Your task to perform on an android device: open a bookmark in the chrome app Image 0: 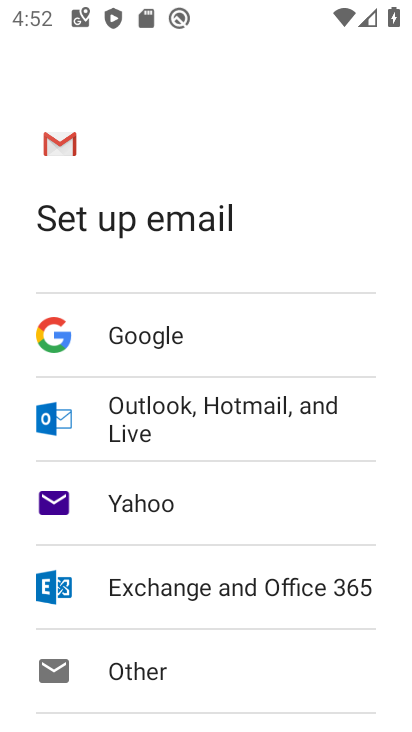
Step 0: press home button
Your task to perform on an android device: open a bookmark in the chrome app Image 1: 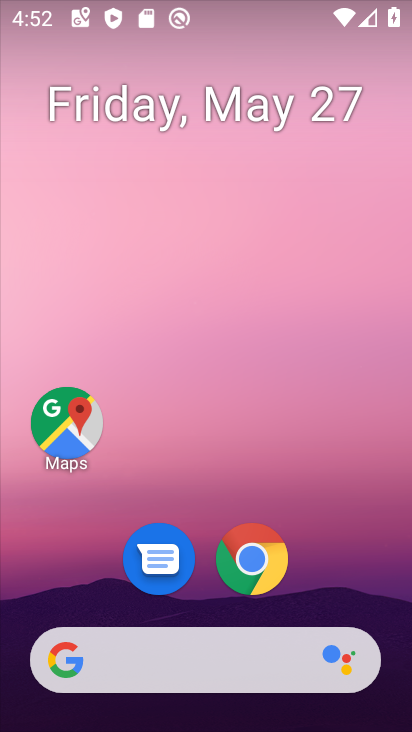
Step 1: click (264, 570)
Your task to perform on an android device: open a bookmark in the chrome app Image 2: 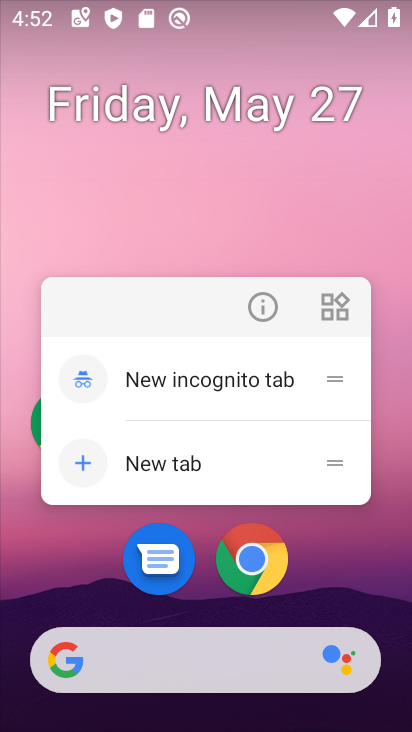
Step 2: click (260, 554)
Your task to perform on an android device: open a bookmark in the chrome app Image 3: 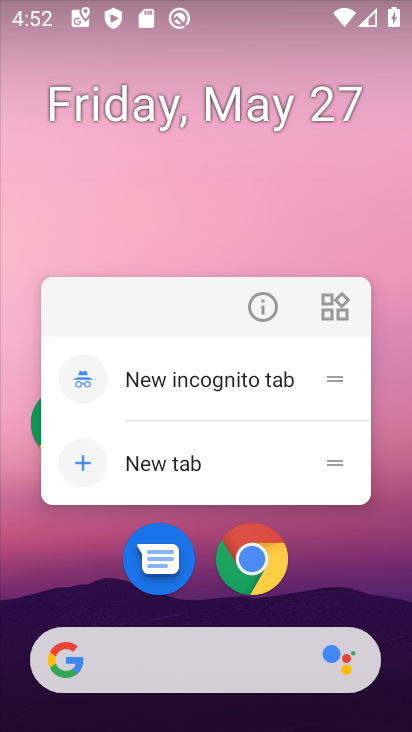
Step 3: click (339, 563)
Your task to perform on an android device: open a bookmark in the chrome app Image 4: 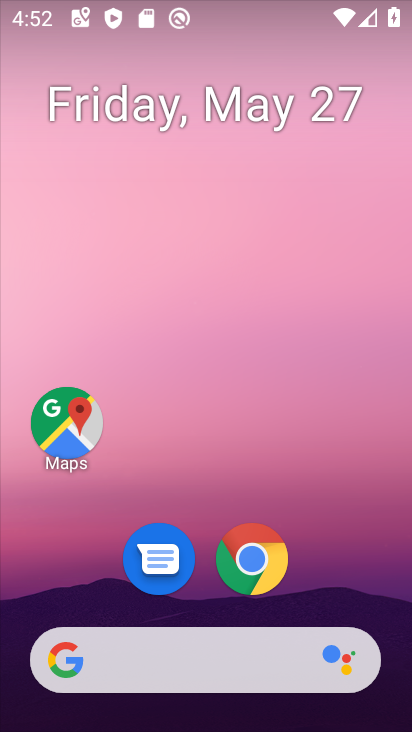
Step 4: drag from (339, 590) to (337, 35)
Your task to perform on an android device: open a bookmark in the chrome app Image 5: 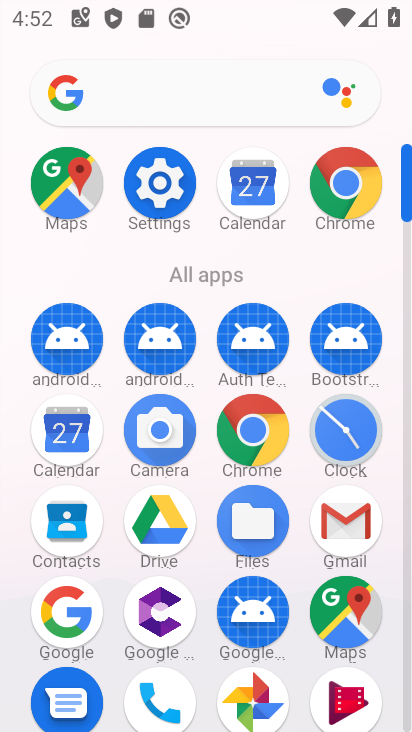
Step 5: click (269, 429)
Your task to perform on an android device: open a bookmark in the chrome app Image 6: 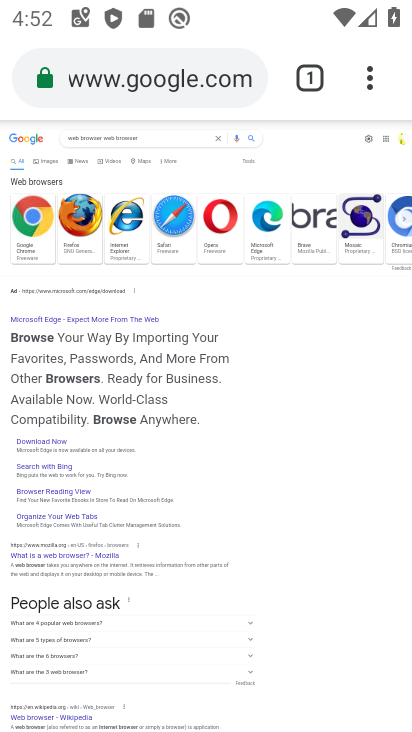
Step 6: task complete